Your task to perform on an android device: toggle notifications settings in the gmail app Image 0: 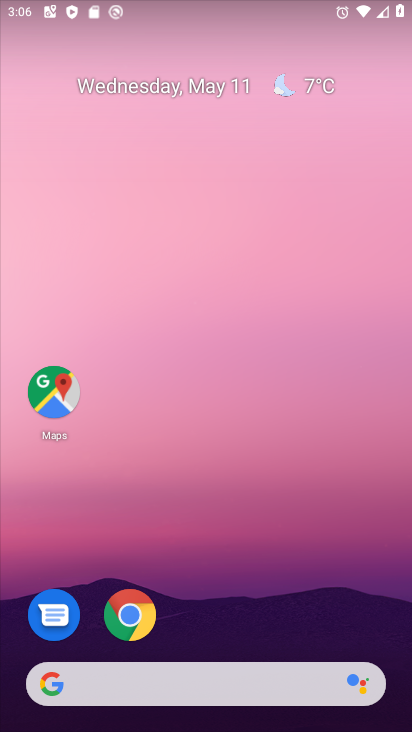
Step 0: drag from (268, 496) to (259, 96)
Your task to perform on an android device: toggle notifications settings in the gmail app Image 1: 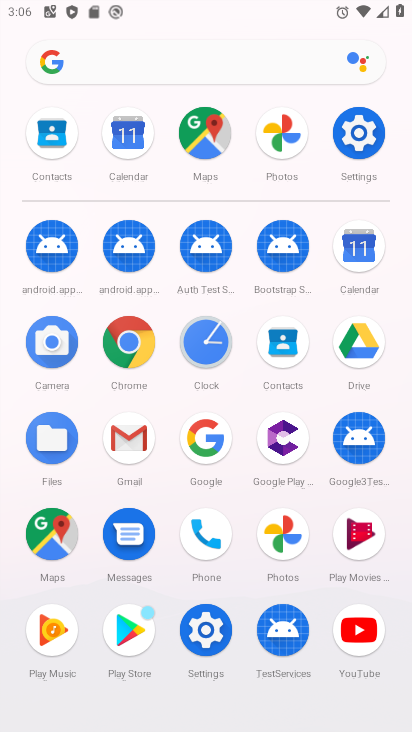
Step 1: click (119, 442)
Your task to perform on an android device: toggle notifications settings in the gmail app Image 2: 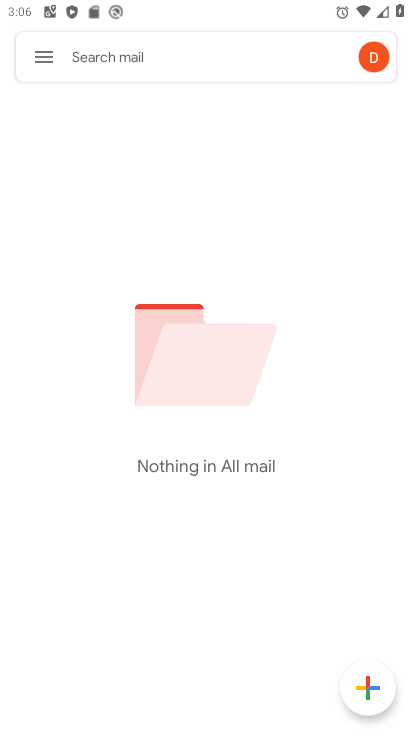
Step 2: click (43, 57)
Your task to perform on an android device: toggle notifications settings in the gmail app Image 3: 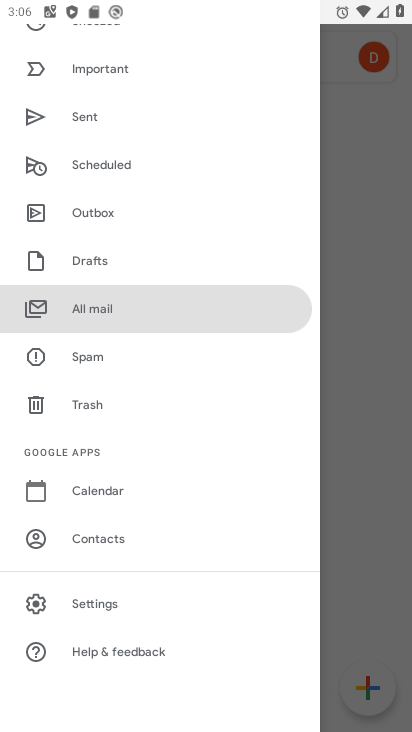
Step 3: drag from (135, 556) to (236, 162)
Your task to perform on an android device: toggle notifications settings in the gmail app Image 4: 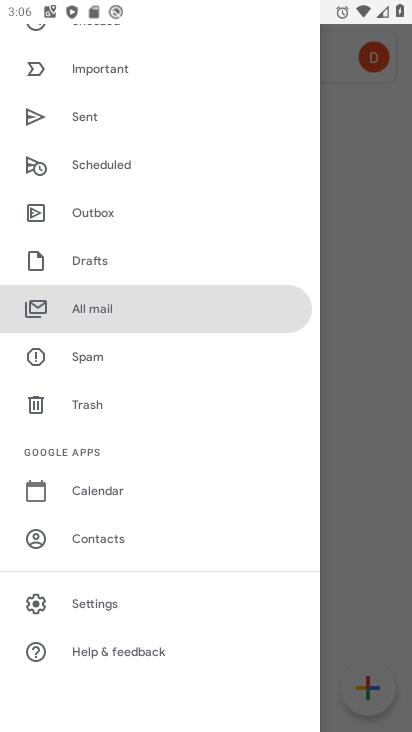
Step 4: click (89, 595)
Your task to perform on an android device: toggle notifications settings in the gmail app Image 5: 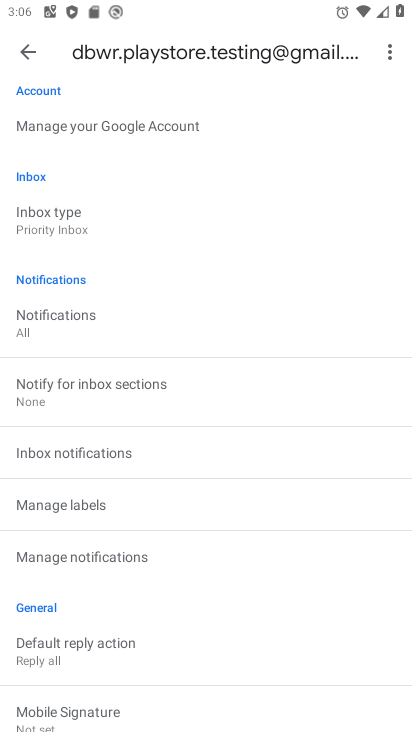
Step 5: click (117, 558)
Your task to perform on an android device: toggle notifications settings in the gmail app Image 6: 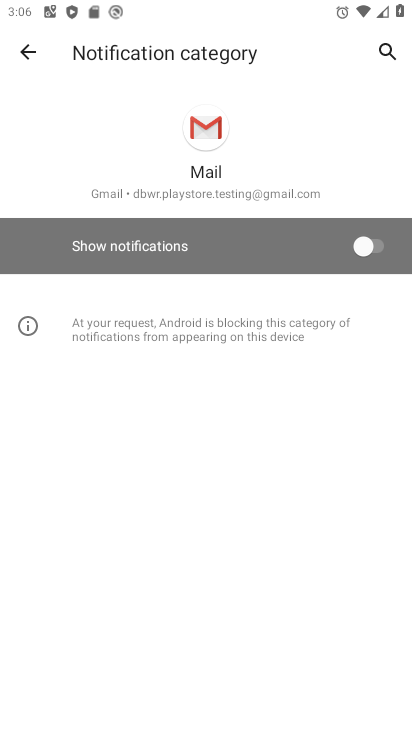
Step 6: click (343, 249)
Your task to perform on an android device: toggle notifications settings in the gmail app Image 7: 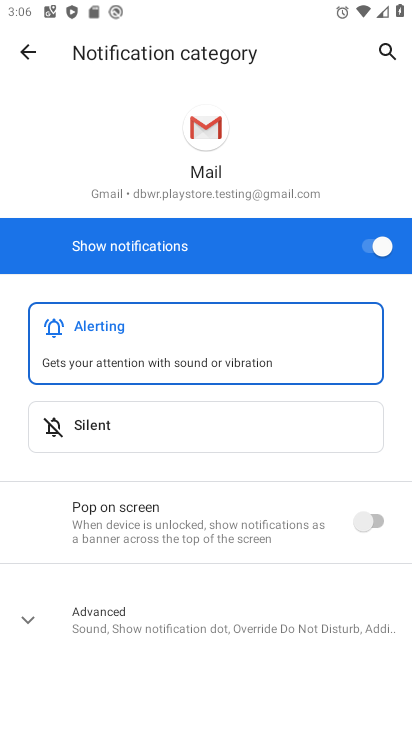
Step 7: task complete